Your task to perform on an android device: empty trash in the gmail app Image 0: 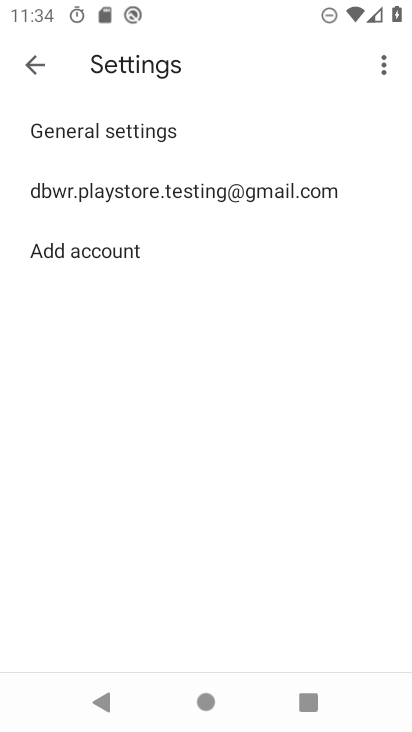
Step 0: press home button
Your task to perform on an android device: empty trash in the gmail app Image 1: 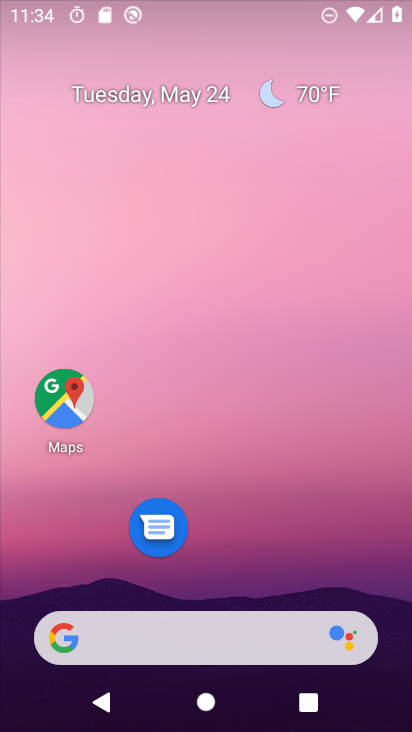
Step 1: drag from (273, 557) to (249, 71)
Your task to perform on an android device: empty trash in the gmail app Image 2: 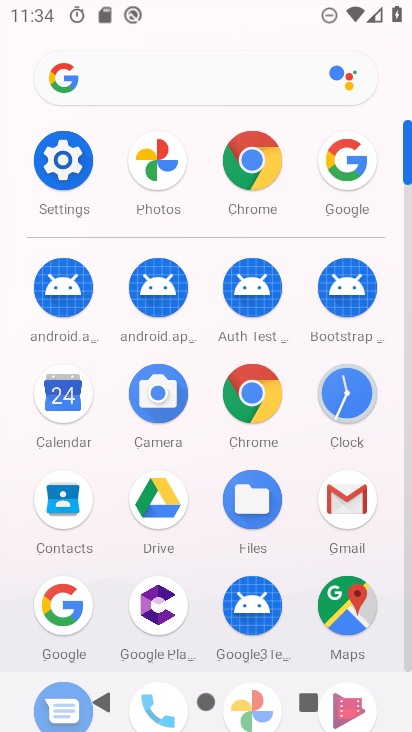
Step 2: click (347, 503)
Your task to perform on an android device: empty trash in the gmail app Image 3: 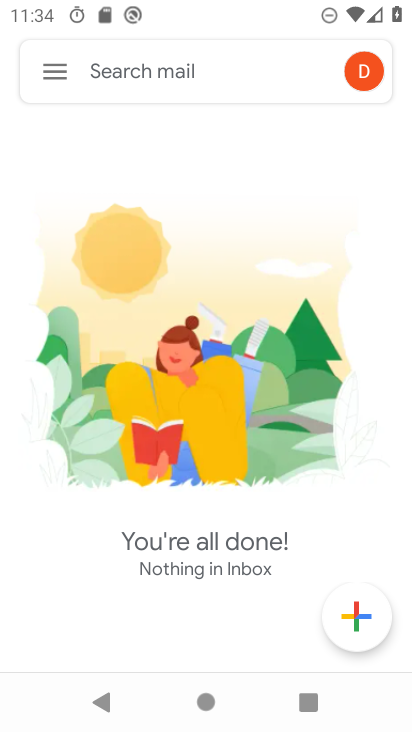
Step 3: click (56, 68)
Your task to perform on an android device: empty trash in the gmail app Image 4: 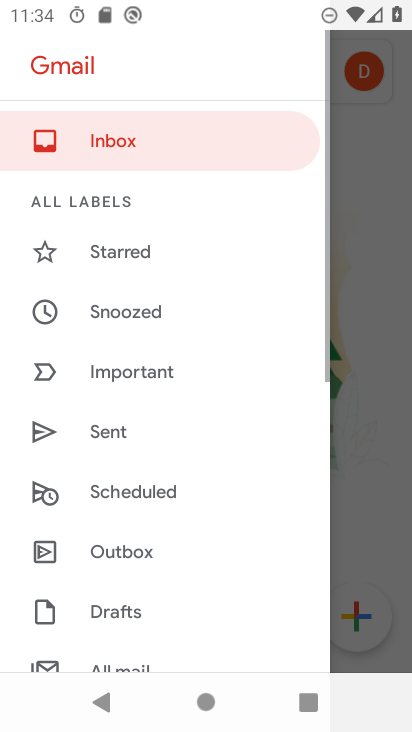
Step 4: drag from (172, 583) to (206, 197)
Your task to perform on an android device: empty trash in the gmail app Image 5: 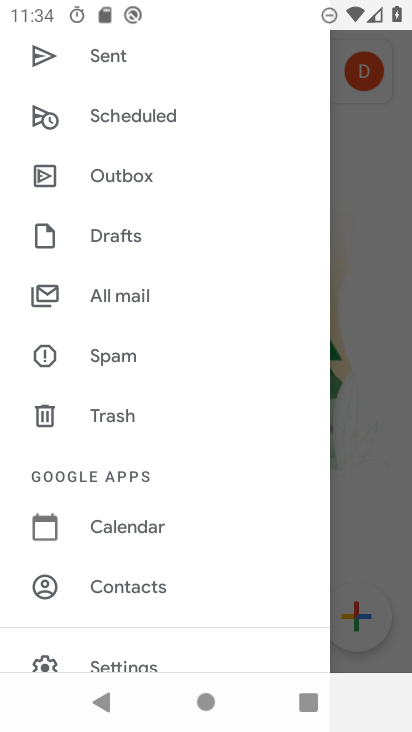
Step 5: click (132, 422)
Your task to perform on an android device: empty trash in the gmail app Image 6: 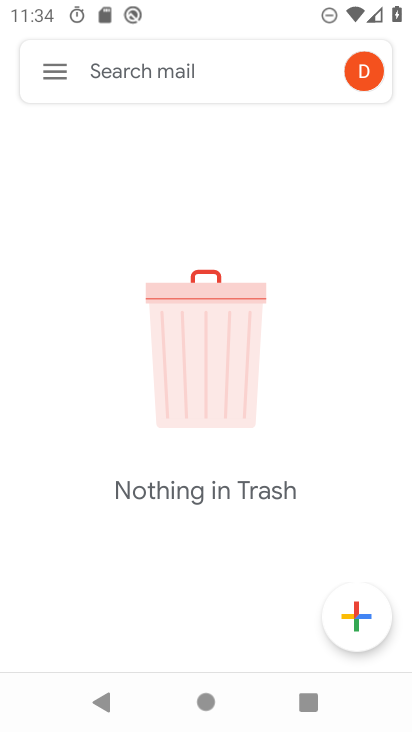
Step 6: task complete